Your task to perform on an android device: Open Yahoo.com Image 0: 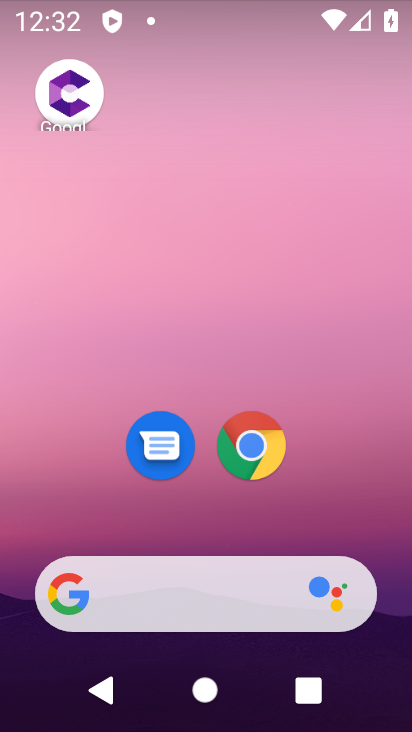
Step 0: click (251, 444)
Your task to perform on an android device: Open Yahoo.com Image 1: 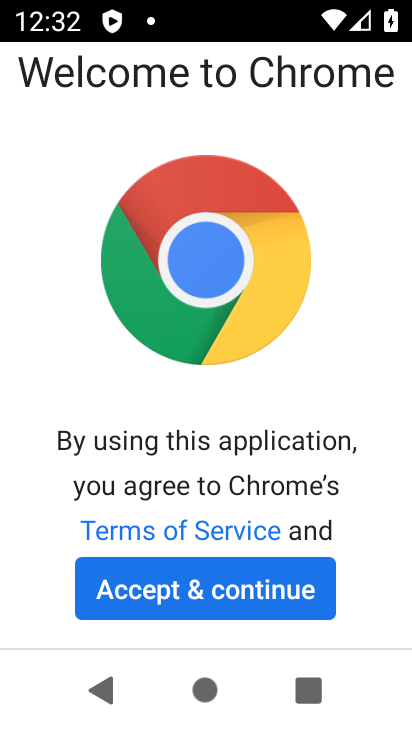
Step 1: click (194, 587)
Your task to perform on an android device: Open Yahoo.com Image 2: 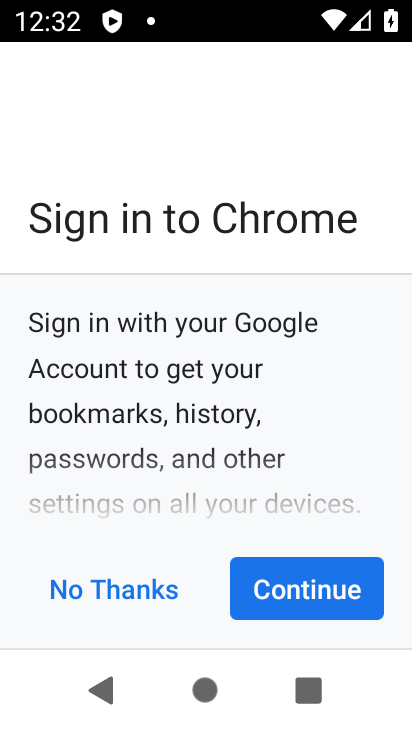
Step 2: click (320, 582)
Your task to perform on an android device: Open Yahoo.com Image 3: 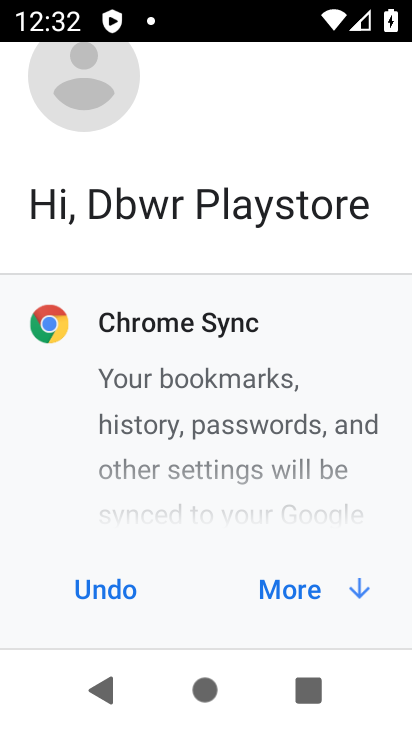
Step 3: click (292, 600)
Your task to perform on an android device: Open Yahoo.com Image 4: 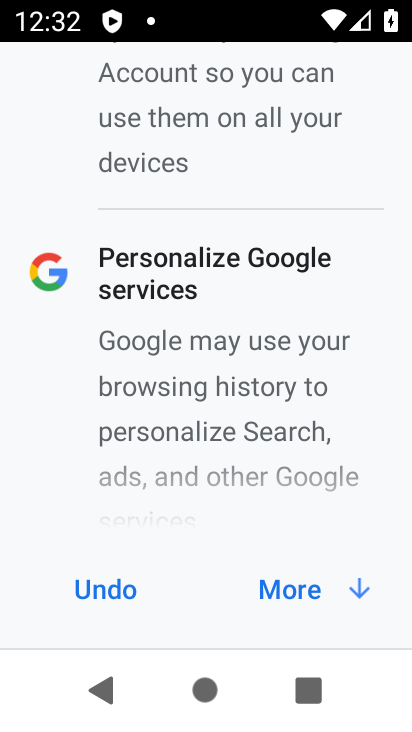
Step 4: click (300, 590)
Your task to perform on an android device: Open Yahoo.com Image 5: 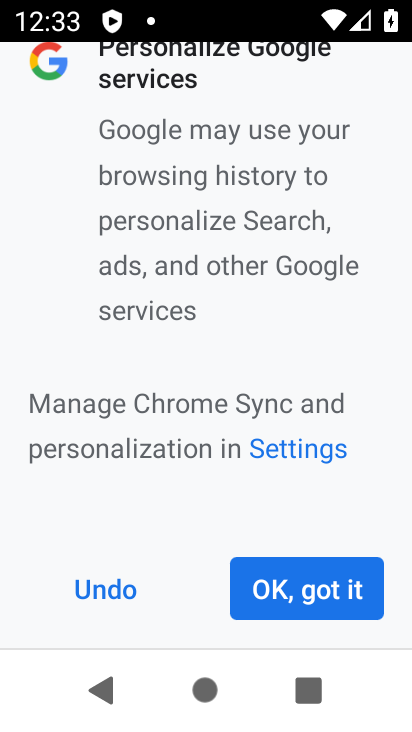
Step 5: click (300, 590)
Your task to perform on an android device: Open Yahoo.com Image 6: 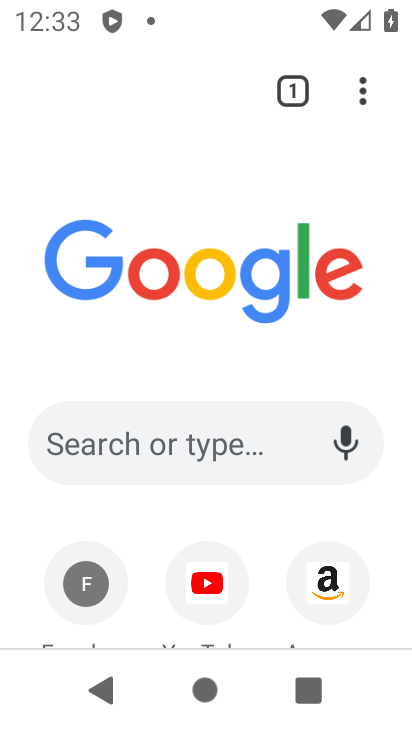
Step 6: click (137, 434)
Your task to perform on an android device: Open Yahoo.com Image 7: 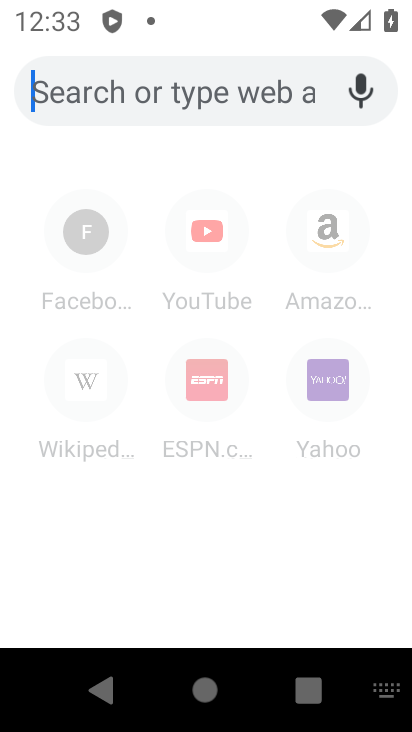
Step 7: type "yahoo.com"
Your task to perform on an android device: Open Yahoo.com Image 8: 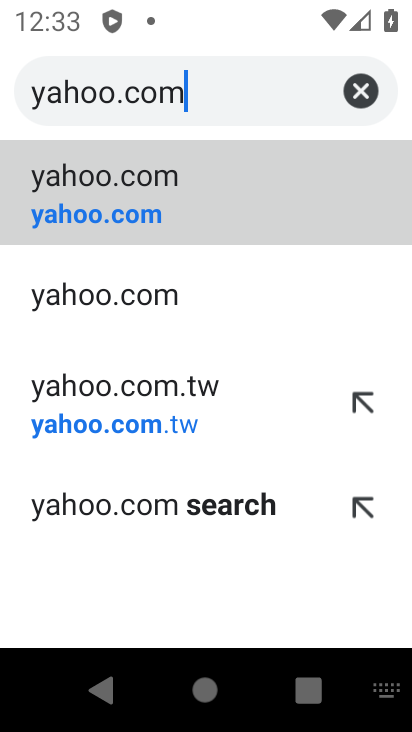
Step 8: click (79, 187)
Your task to perform on an android device: Open Yahoo.com Image 9: 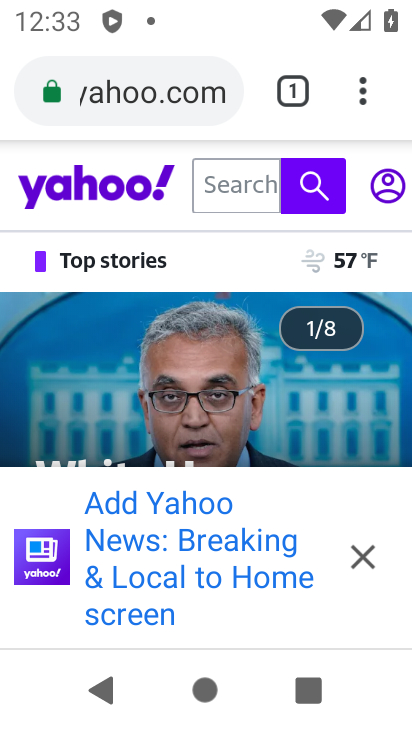
Step 9: task complete